Your task to perform on an android device: Open notification settings Image 0: 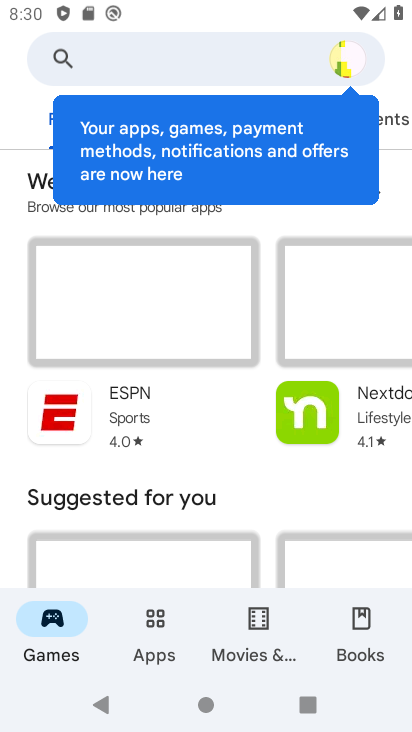
Step 0: press home button
Your task to perform on an android device: Open notification settings Image 1: 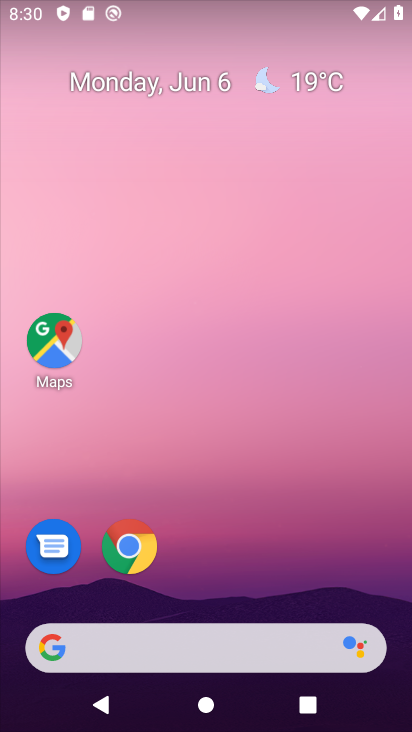
Step 1: drag from (159, 704) to (202, 64)
Your task to perform on an android device: Open notification settings Image 2: 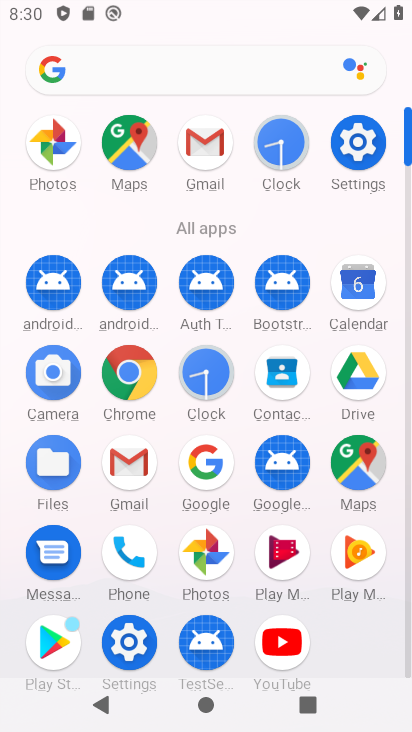
Step 2: click (345, 171)
Your task to perform on an android device: Open notification settings Image 3: 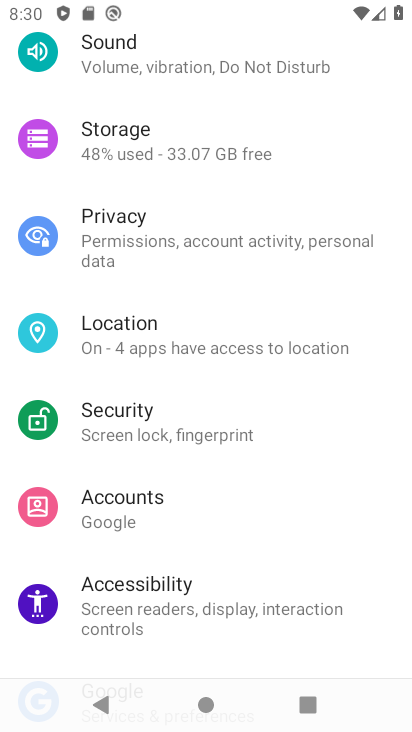
Step 3: drag from (191, 151) to (162, 511)
Your task to perform on an android device: Open notification settings Image 4: 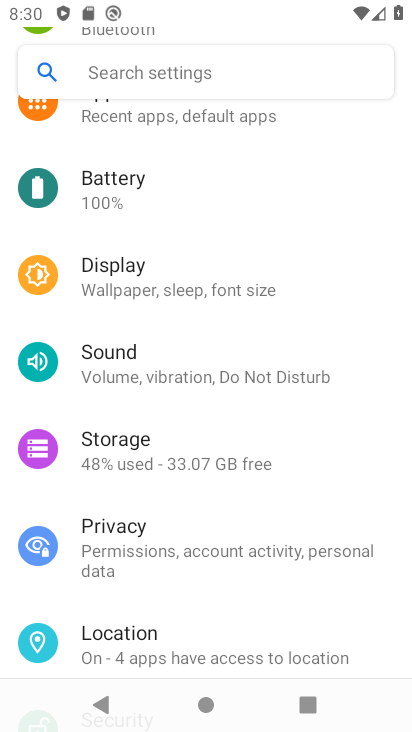
Step 4: click (124, 118)
Your task to perform on an android device: Open notification settings Image 5: 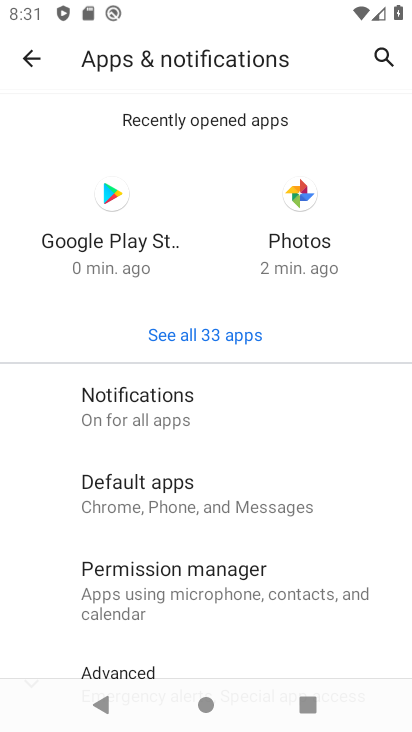
Step 5: task complete